Your task to perform on an android device: Go to CNN.com Image 0: 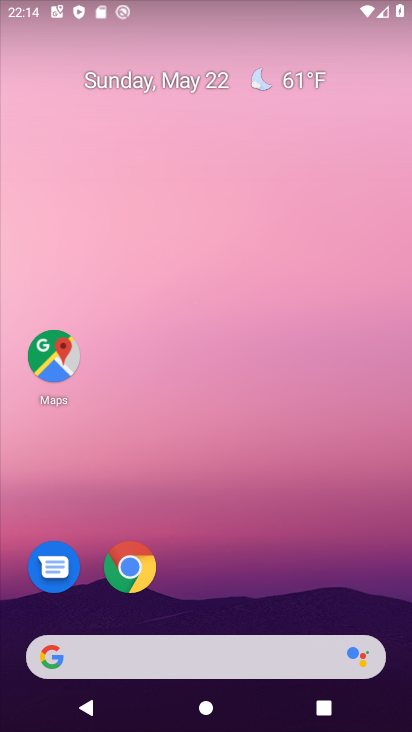
Step 0: drag from (199, 618) to (176, 53)
Your task to perform on an android device: Go to CNN.com Image 1: 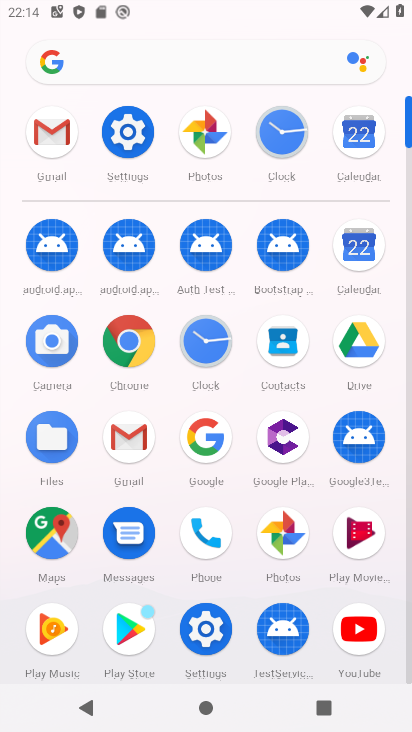
Step 1: click (134, 325)
Your task to perform on an android device: Go to CNN.com Image 2: 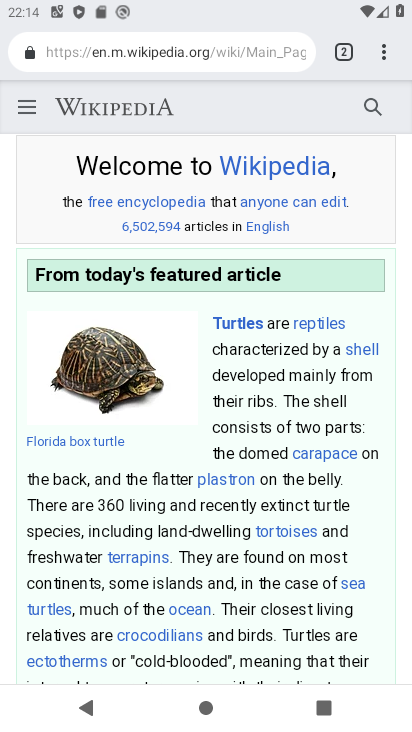
Step 2: click (344, 58)
Your task to perform on an android device: Go to CNN.com Image 3: 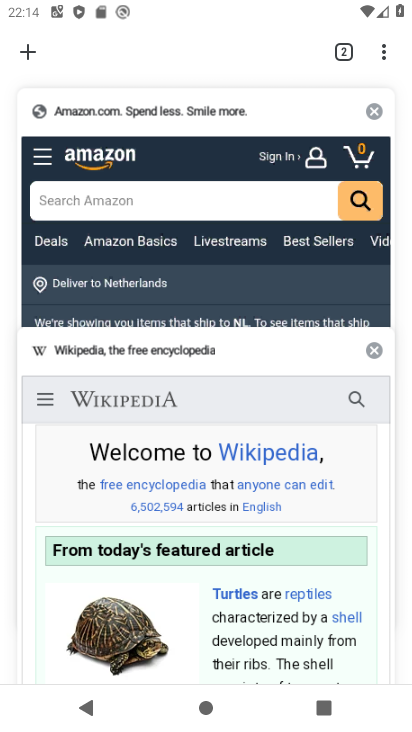
Step 3: click (32, 48)
Your task to perform on an android device: Go to CNN.com Image 4: 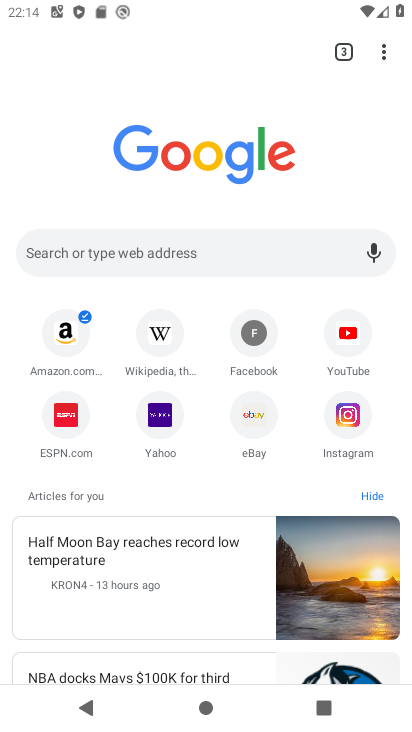
Step 4: click (183, 245)
Your task to perform on an android device: Go to CNN.com Image 5: 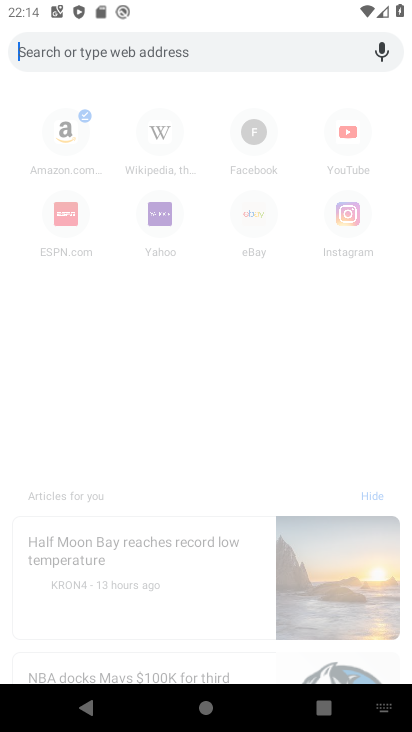
Step 5: type "cnn"
Your task to perform on an android device: Go to CNN.com Image 6: 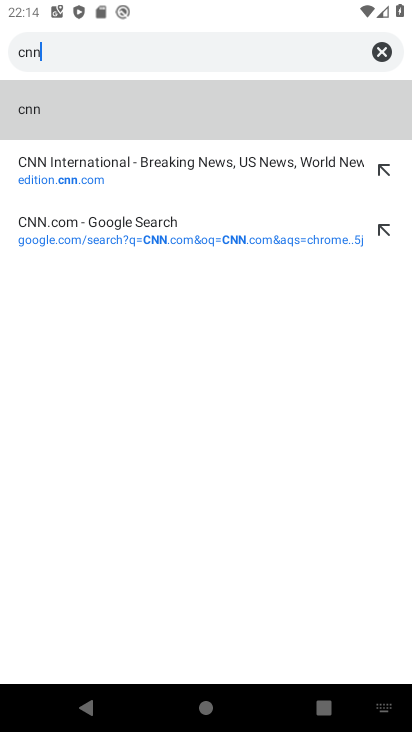
Step 6: type ""
Your task to perform on an android device: Go to CNN.com Image 7: 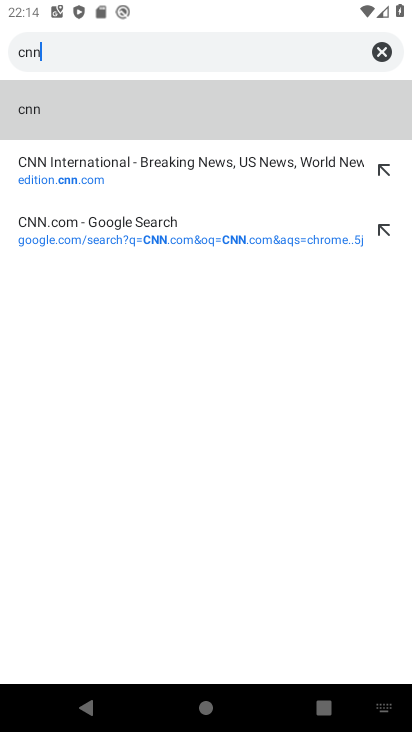
Step 7: click (107, 213)
Your task to perform on an android device: Go to CNN.com Image 8: 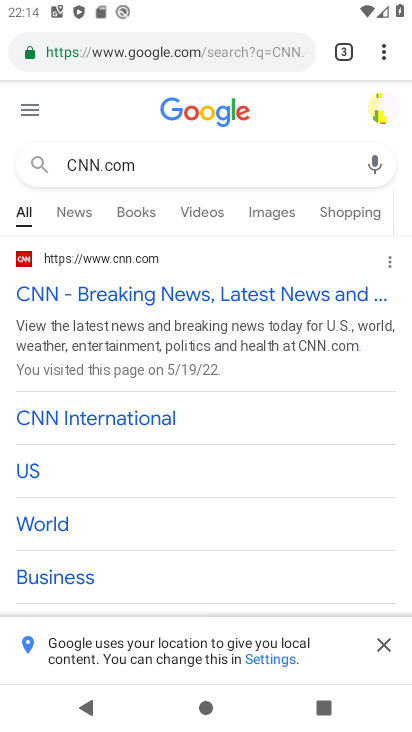
Step 8: click (124, 294)
Your task to perform on an android device: Go to CNN.com Image 9: 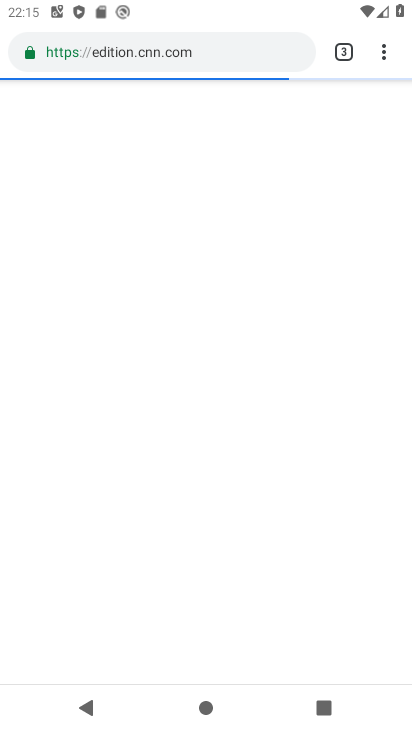
Step 9: task complete